Your task to perform on an android device: open wifi settings Image 0: 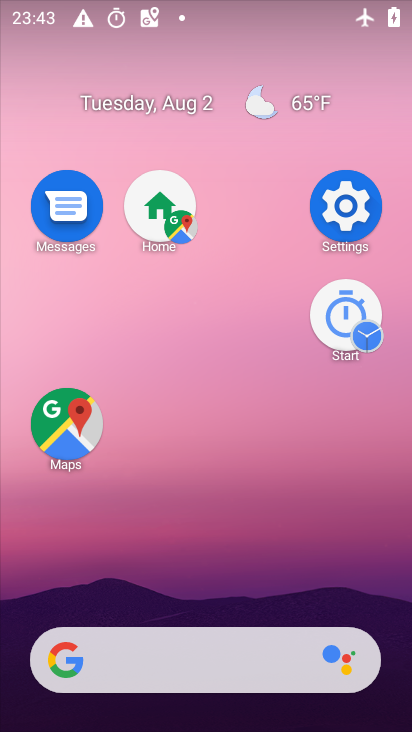
Step 0: drag from (223, 608) to (180, 243)
Your task to perform on an android device: open wifi settings Image 1: 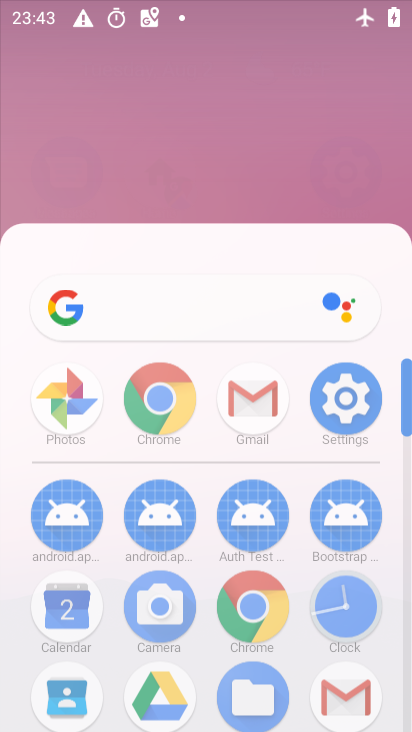
Step 1: drag from (213, 533) to (185, 214)
Your task to perform on an android device: open wifi settings Image 2: 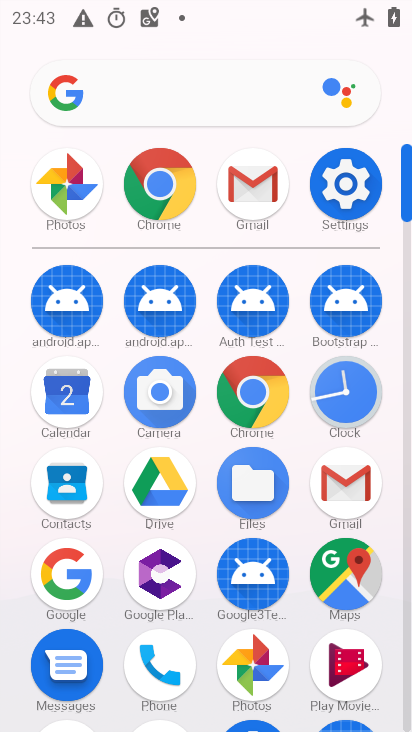
Step 2: click (370, 184)
Your task to perform on an android device: open wifi settings Image 3: 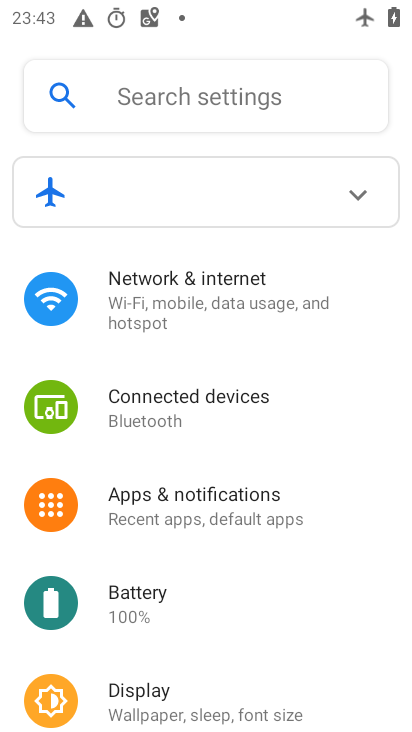
Step 3: click (209, 306)
Your task to perform on an android device: open wifi settings Image 4: 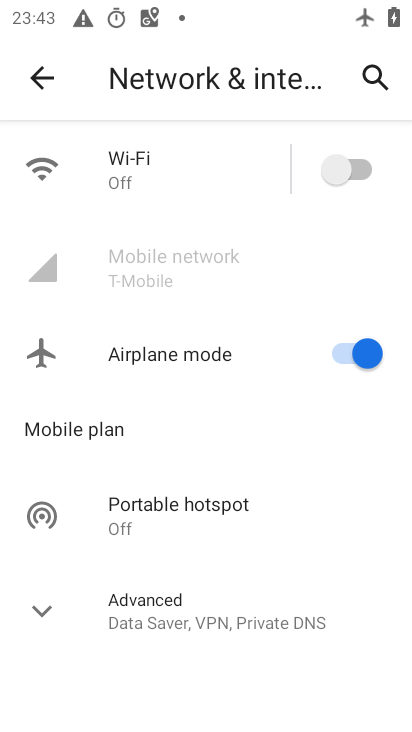
Step 4: click (340, 167)
Your task to perform on an android device: open wifi settings Image 5: 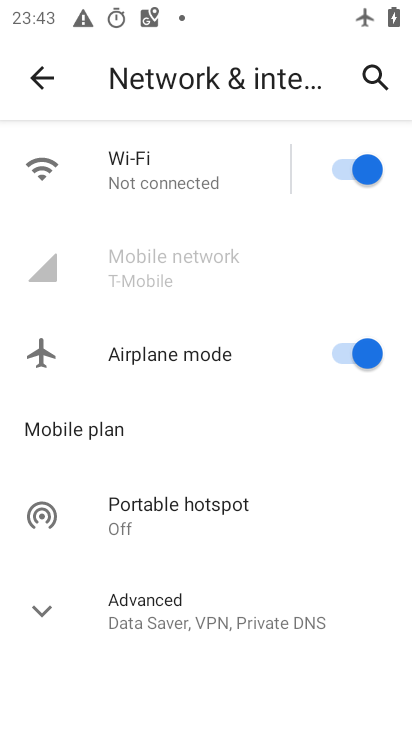
Step 5: task complete